Your task to perform on an android device: stop showing notifications on the lock screen Image 0: 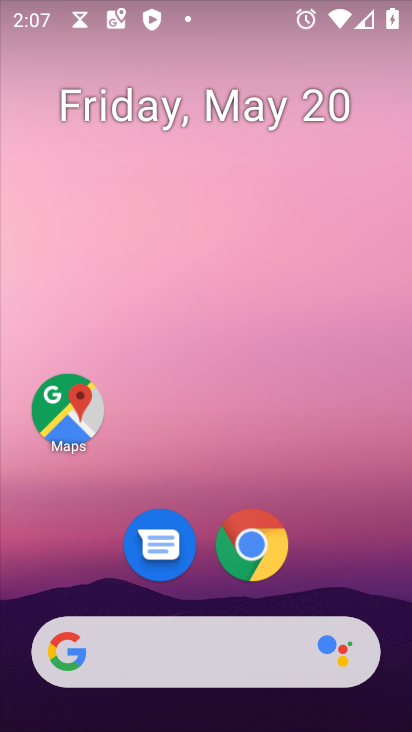
Step 0: drag from (345, 561) to (282, 138)
Your task to perform on an android device: stop showing notifications on the lock screen Image 1: 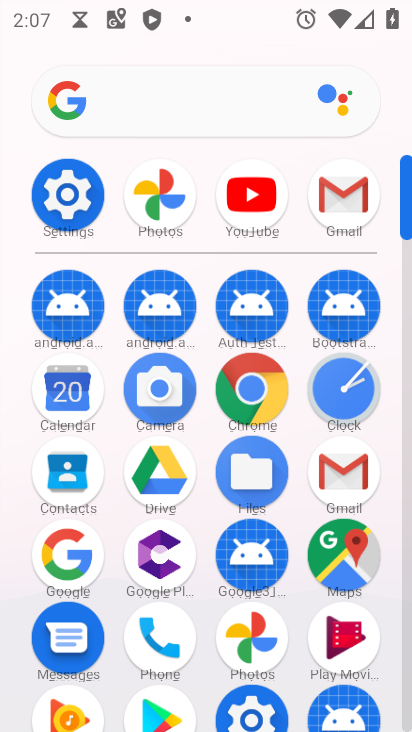
Step 1: click (77, 211)
Your task to perform on an android device: stop showing notifications on the lock screen Image 2: 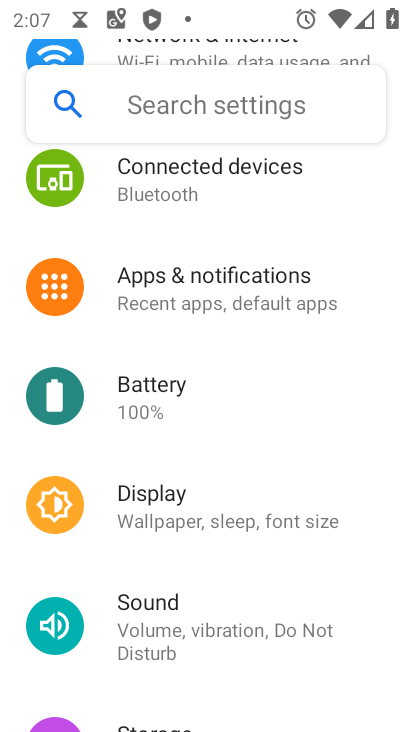
Step 2: click (260, 288)
Your task to perform on an android device: stop showing notifications on the lock screen Image 3: 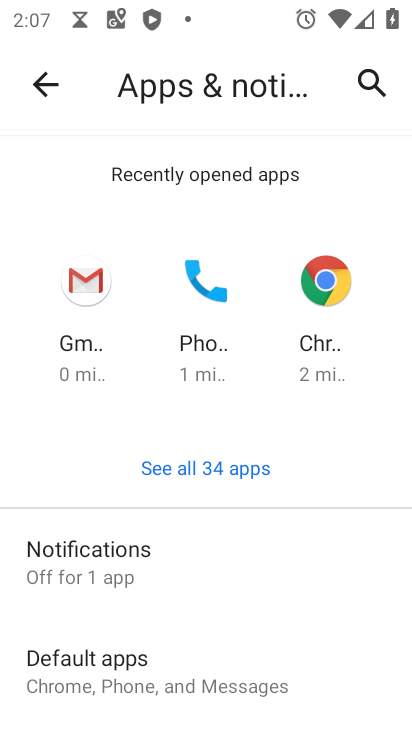
Step 3: click (194, 578)
Your task to perform on an android device: stop showing notifications on the lock screen Image 4: 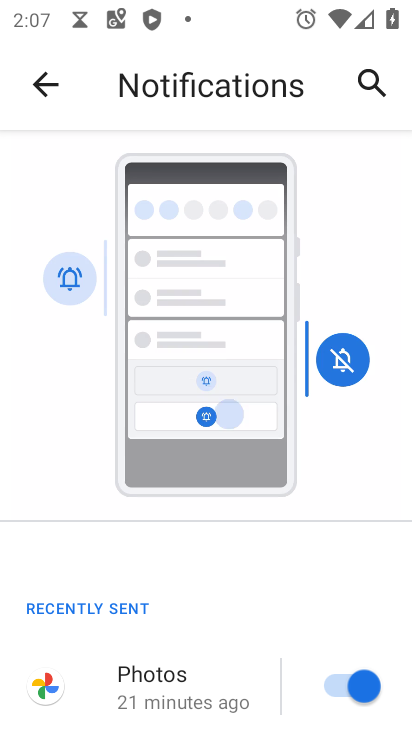
Step 4: drag from (231, 591) to (213, 277)
Your task to perform on an android device: stop showing notifications on the lock screen Image 5: 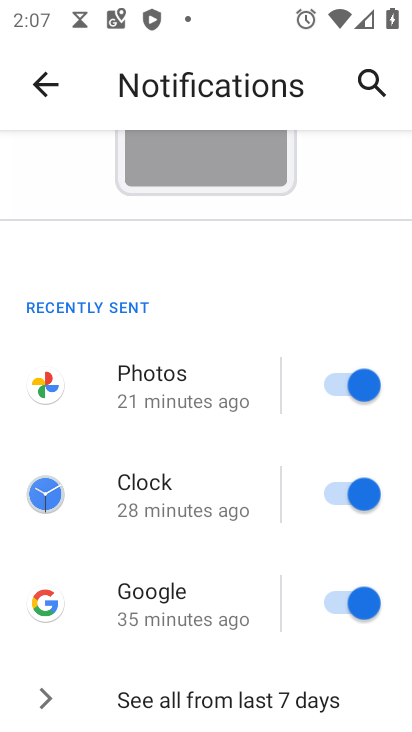
Step 5: drag from (276, 625) to (221, 266)
Your task to perform on an android device: stop showing notifications on the lock screen Image 6: 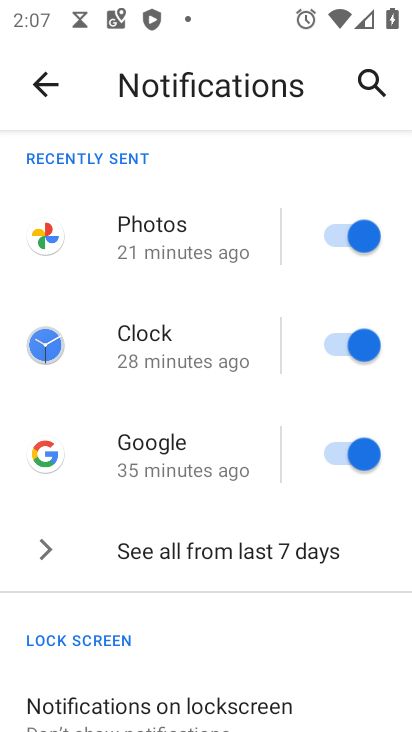
Step 6: click (211, 705)
Your task to perform on an android device: stop showing notifications on the lock screen Image 7: 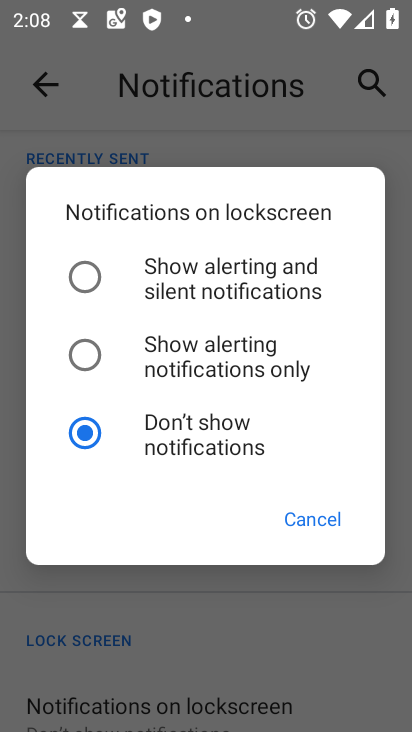
Step 7: click (206, 425)
Your task to perform on an android device: stop showing notifications on the lock screen Image 8: 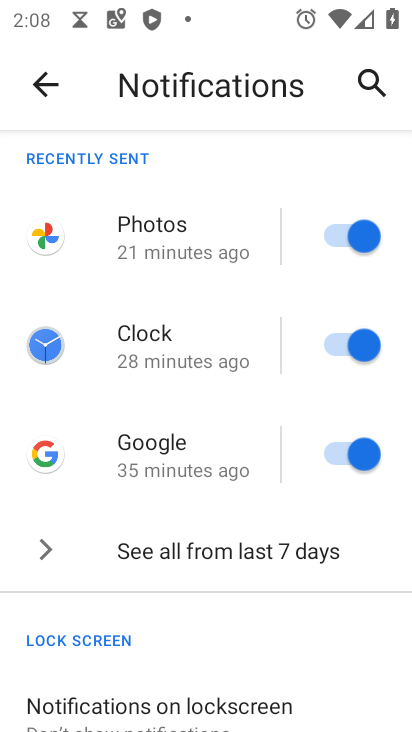
Step 8: task complete